Your task to perform on an android device: Go to wifi settings Image 0: 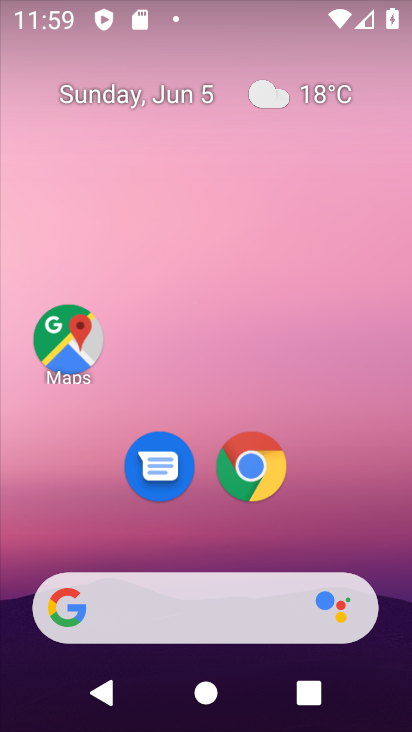
Step 0: drag from (354, 541) to (231, 2)
Your task to perform on an android device: Go to wifi settings Image 1: 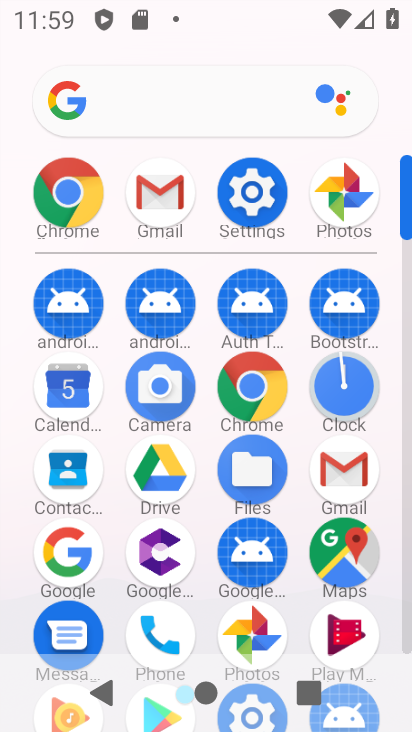
Step 1: drag from (6, 569) to (17, 262)
Your task to perform on an android device: Go to wifi settings Image 2: 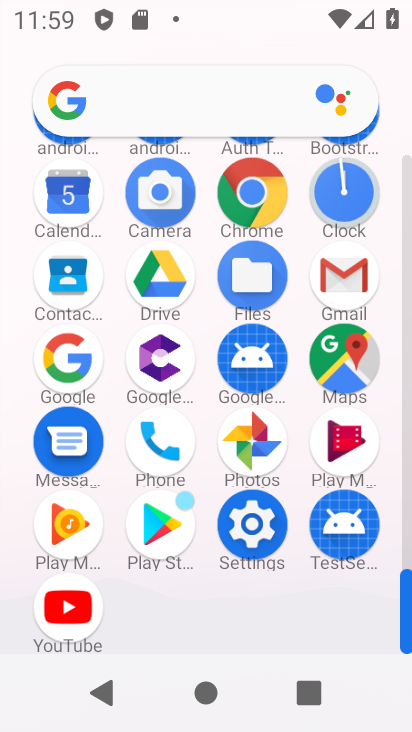
Step 2: click (254, 516)
Your task to perform on an android device: Go to wifi settings Image 3: 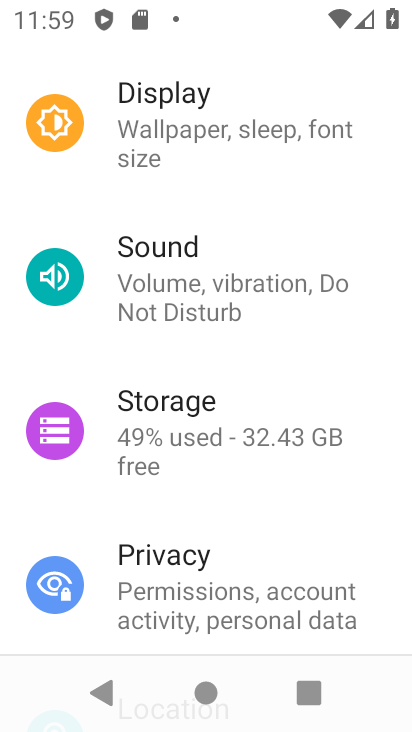
Step 3: drag from (268, 164) to (283, 594)
Your task to perform on an android device: Go to wifi settings Image 4: 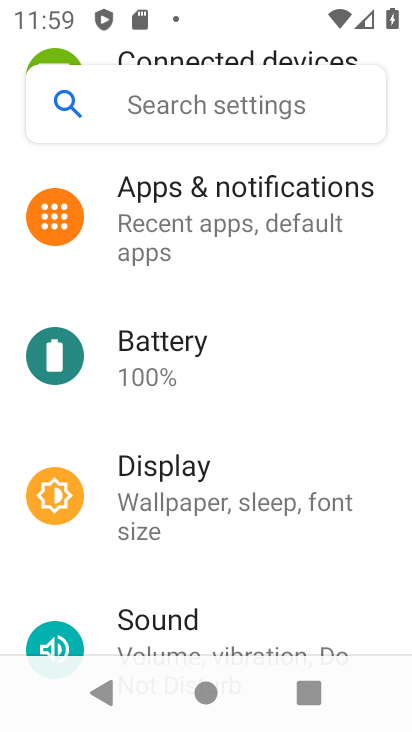
Step 4: drag from (258, 235) to (255, 601)
Your task to perform on an android device: Go to wifi settings Image 5: 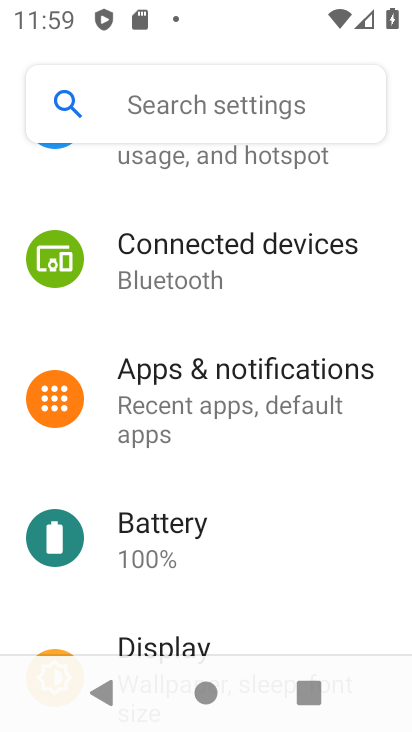
Step 5: drag from (230, 244) to (250, 566)
Your task to perform on an android device: Go to wifi settings Image 6: 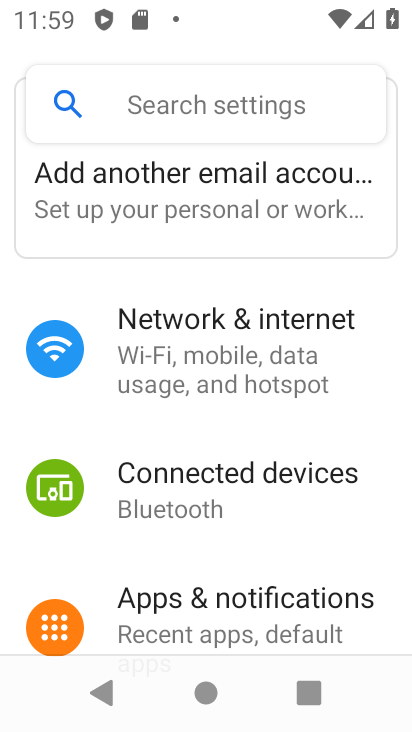
Step 6: click (240, 365)
Your task to perform on an android device: Go to wifi settings Image 7: 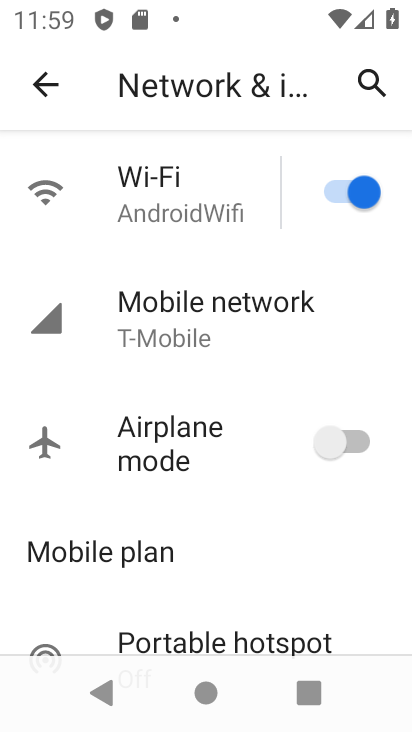
Step 7: click (190, 177)
Your task to perform on an android device: Go to wifi settings Image 8: 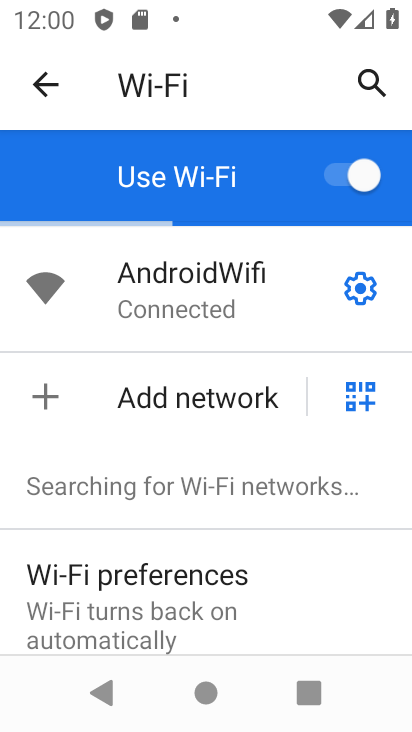
Step 8: task complete